Your task to perform on an android device: Open display settings Image 0: 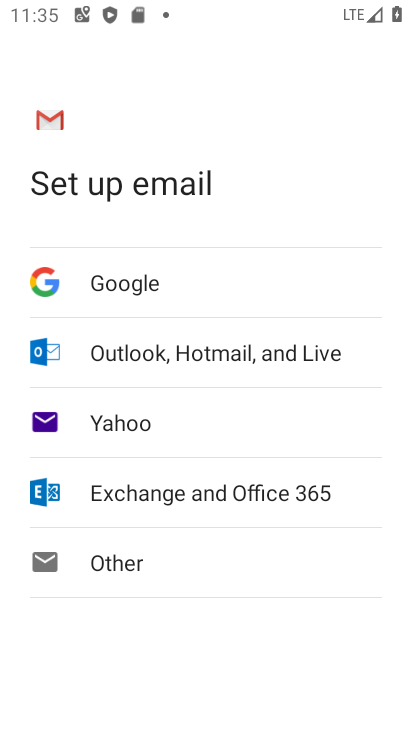
Step 0: press home button
Your task to perform on an android device: Open display settings Image 1: 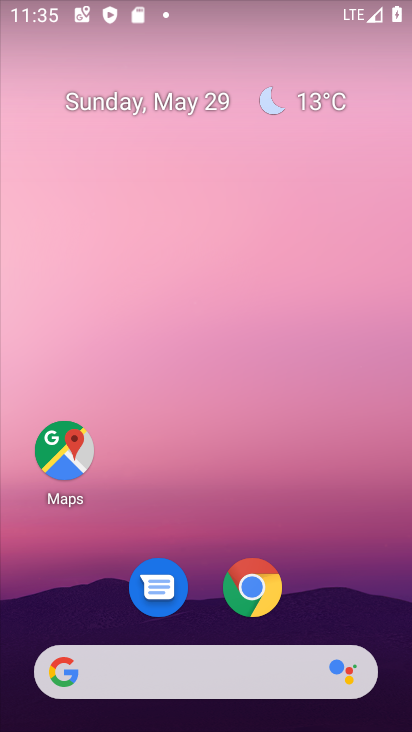
Step 1: drag from (332, 555) to (309, 144)
Your task to perform on an android device: Open display settings Image 2: 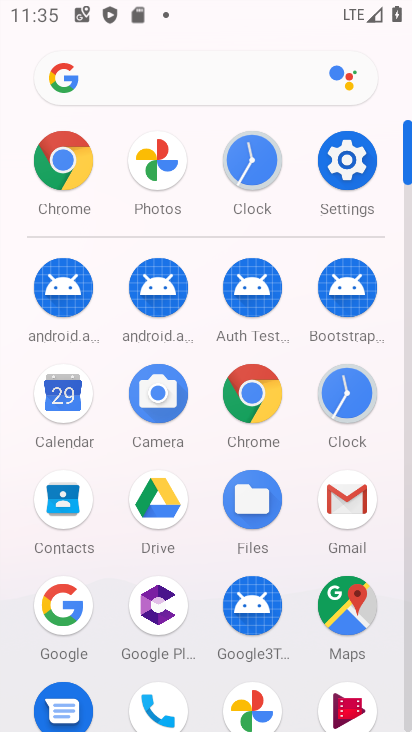
Step 2: click (348, 166)
Your task to perform on an android device: Open display settings Image 3: 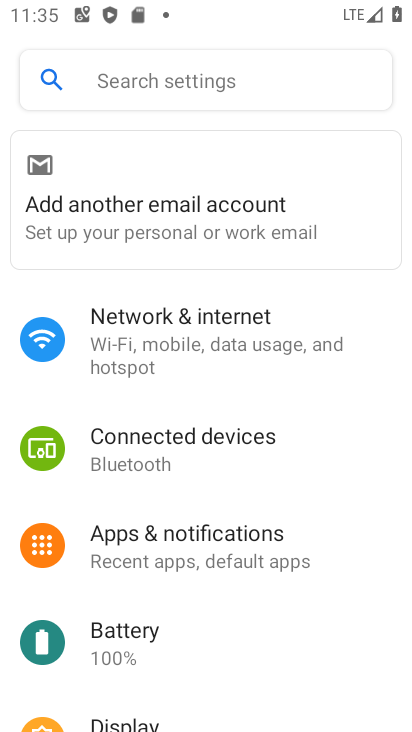
Step 3: drag from (279, 537) to (299, 127)
Your task to perform on an android device: Open display settings Image 4: 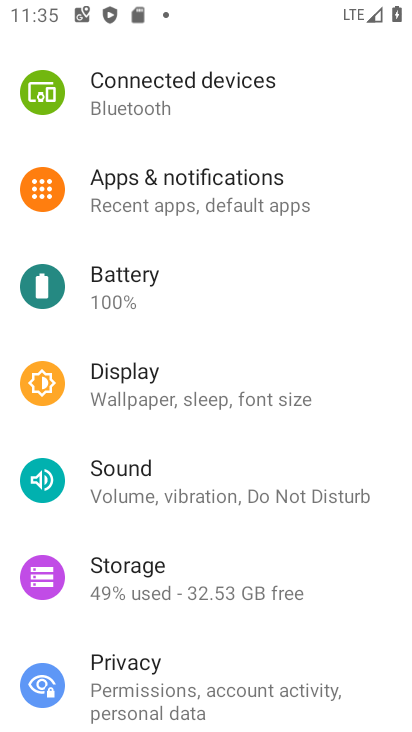
Step 4: click (185, 388)
Your task to perform on an android device: Open display settings Image 5: 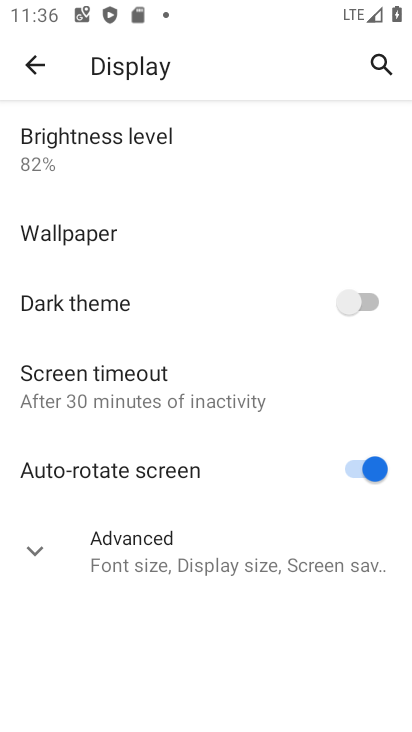
Step 5: task complete